Your task to perform on an android device: Open Youtube and go to the subscriptions tab Image 0: 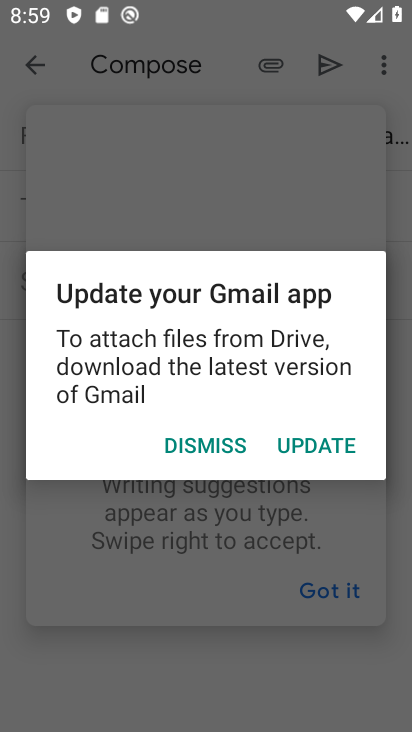
Step 0: press home button
Your task to perform on an android device: Open Youtube and go to the subscriptions tab Image 1: 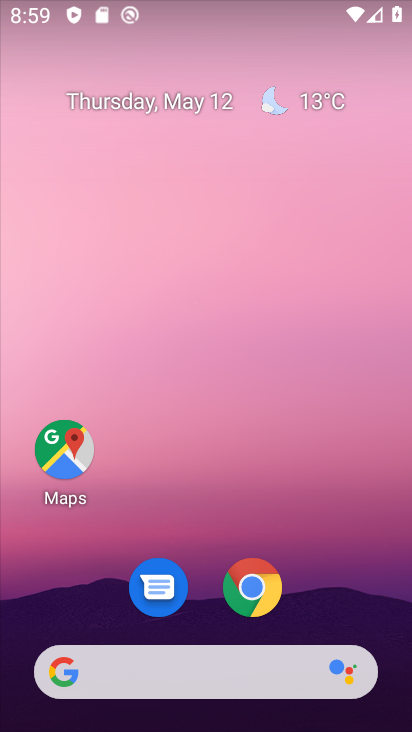
Step 1: drag from (397, 492) to (376, 129)
Your task to perform on an android device: Open Youtube and go to the subscriptions tab Image 2: 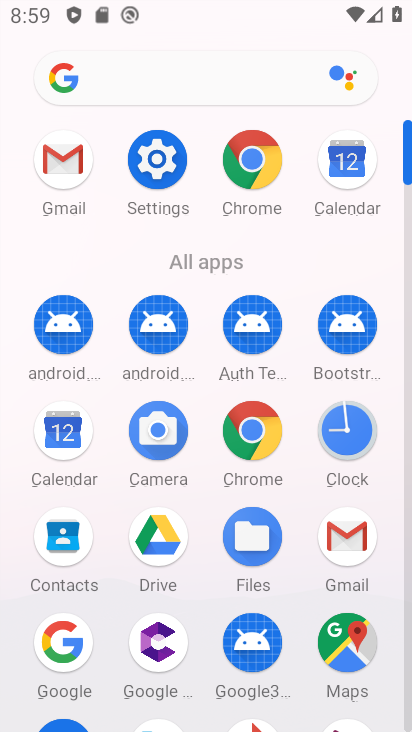
Step 2: drag from (387, 427) to (375, 99)
Your task to perform on an android device: Open Youtube and go to the subscriptions tab Image 3: 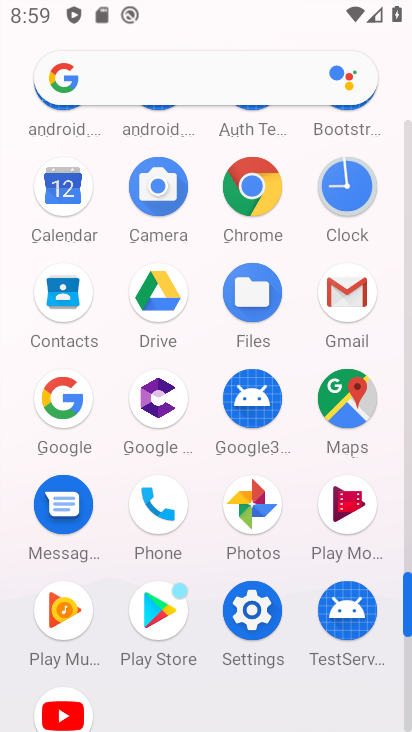
Step 3: click (71, 699)
Your task to perform on an android device: Open Youtube and go to the subscriptions tab Image 4: 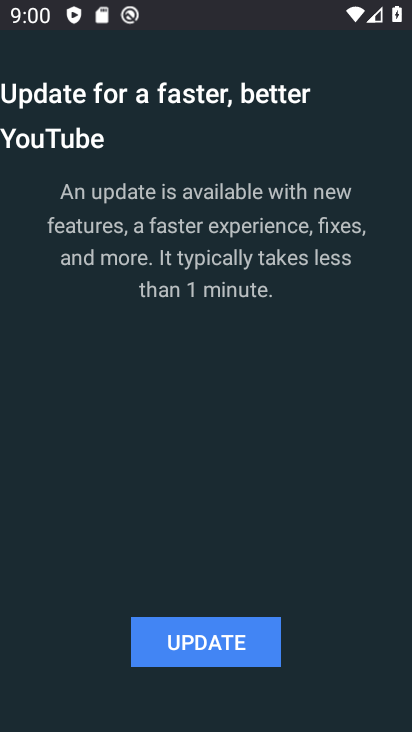
Step 4: click (222, 637)
Your task to perform on an android device: Open Youtube and go to the subscriptions tab Image 5: 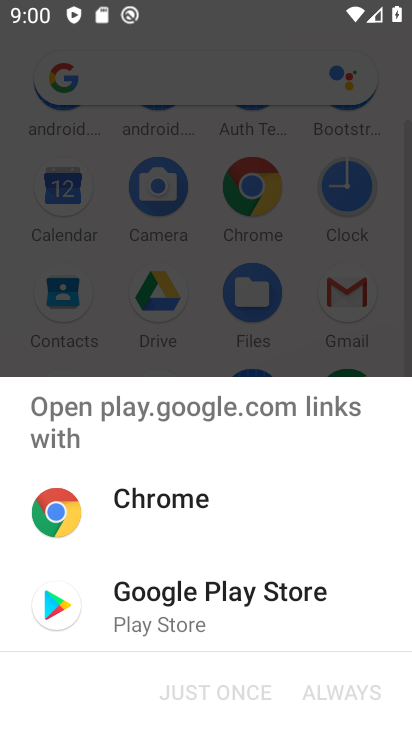
Step 5: click (217, 629)
Your task to perform on an android device: Open Youtube and go to the subscriptions tab Image 6: 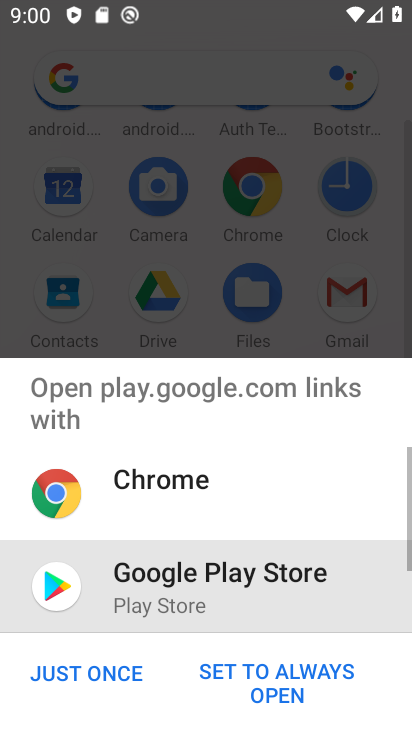
Step 6: click (97, 672)
Your task to perform on an android device: Open Youtube and go to the subscriptions tab Image 7: 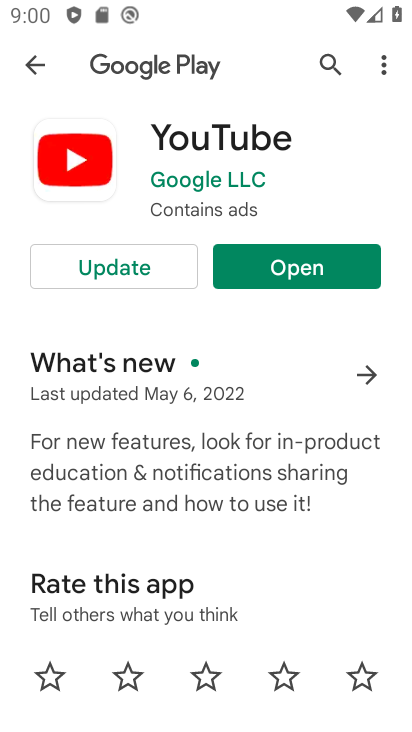
Step 7: click (168, 266)
Your task to perform on an android device: Open Youtube and go to the subscriptions tab Image 8: 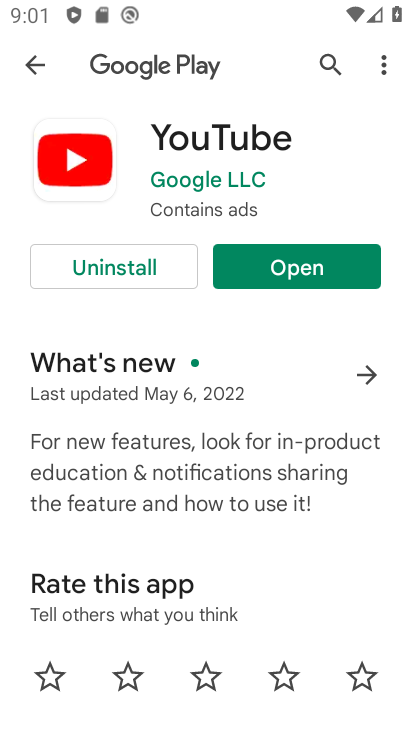
Step 8: click (269, 280)
Your task to perform on an android device: Open Youtube and go to the subscriptions tab Image 9: 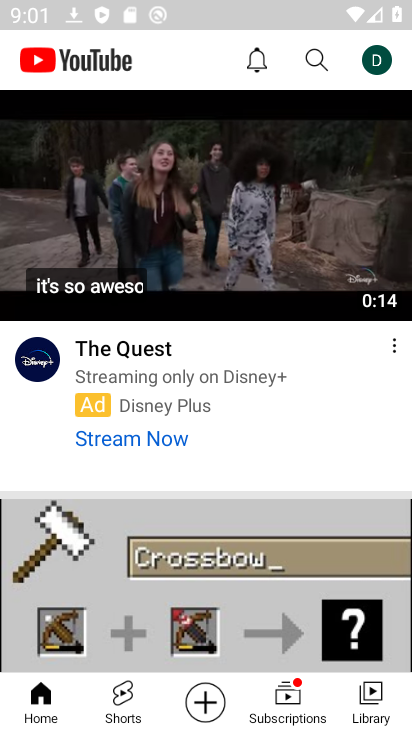
Step 9: click (298, 718)
Your task to perform on an android device: Open Youtube and go to the subscriptions tab Image 10: 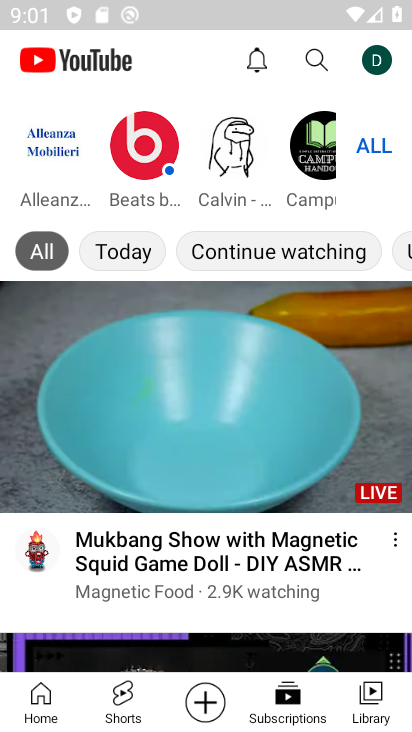
Step 10: task complete